Your task to perform on an android device: Open Google Chrome and click the shortcut for Amazon.com Image 0: 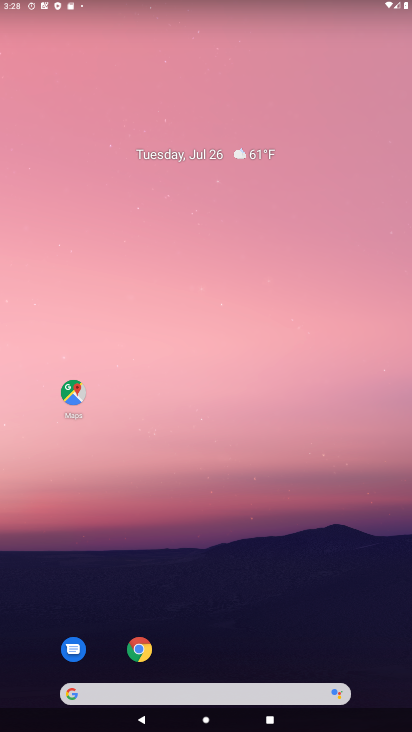
Step 0: click (110, 688)
Your task to perform on an android device: Open Google Chrome and click the shortcut for Amazon.com Image 1: 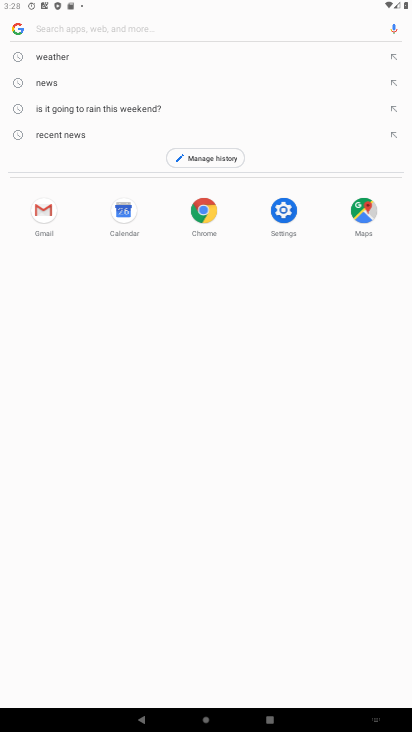
Step 1: task complete